Your task to perform on an android device: move a message to another label in the gmail app Image 0: 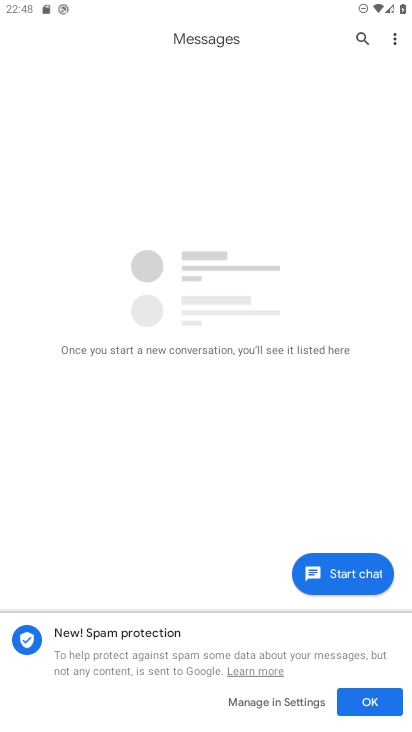
Step 0: press home button
Your task to perform on an android device: move a message to another label in the gmail app Image 1: 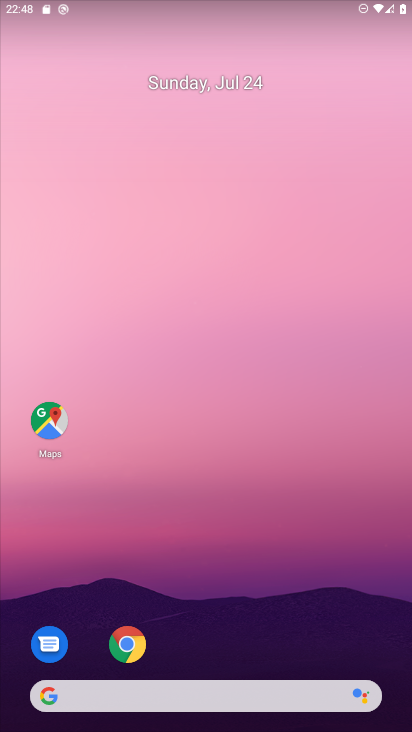
Step 1: drag from (379, 635) to (317, 67)
Your task to perform on an android device: move a message to another label in the gmail app Image 2: 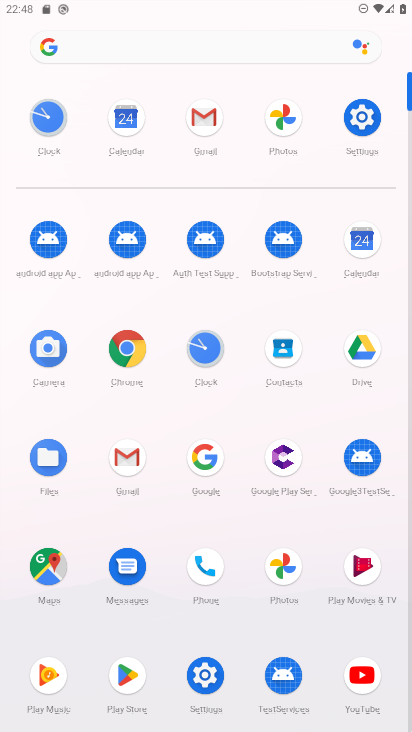
Step 2: click (124, 458)
Your task to perform on an android device: move a message to another label in the gmail app Image 3: 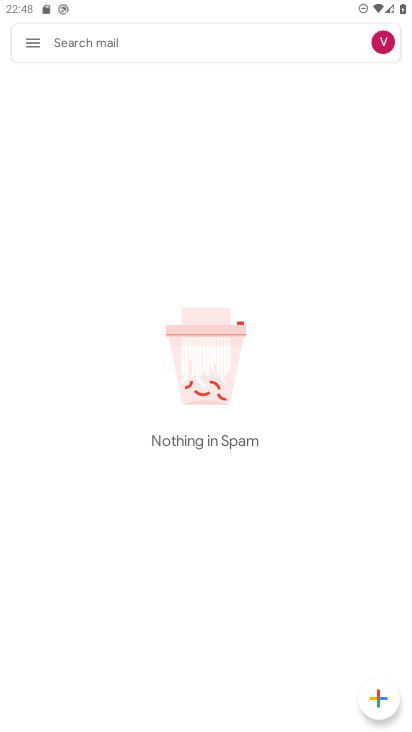
Step 3: click (25, 38)
Your task to perform on an android device: move a message to another label in the gmail app Image 4: 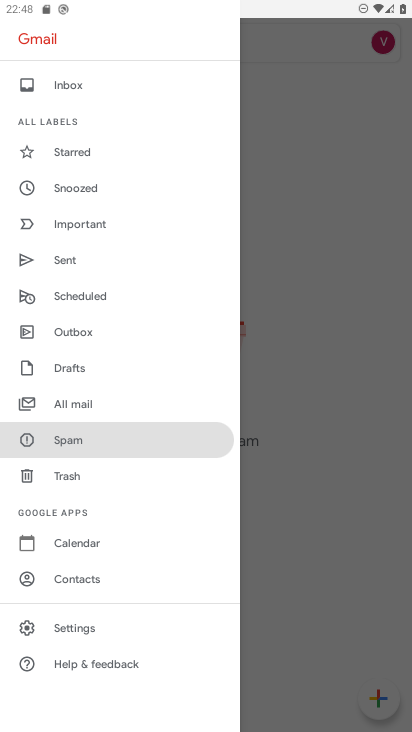
Step 4: click (70, 396)
Your task to perform on an android device: move a message to another label in the gmail app Image 5: 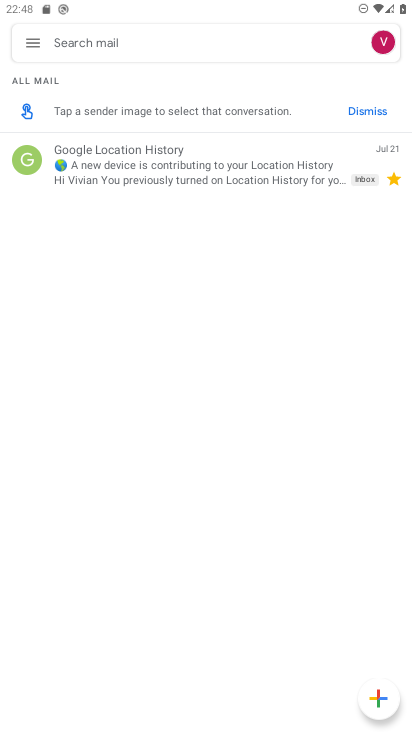
Step 5: click (223, 158)
Your task to perform on an android device: move a message to another label in the gmail app Image 6: 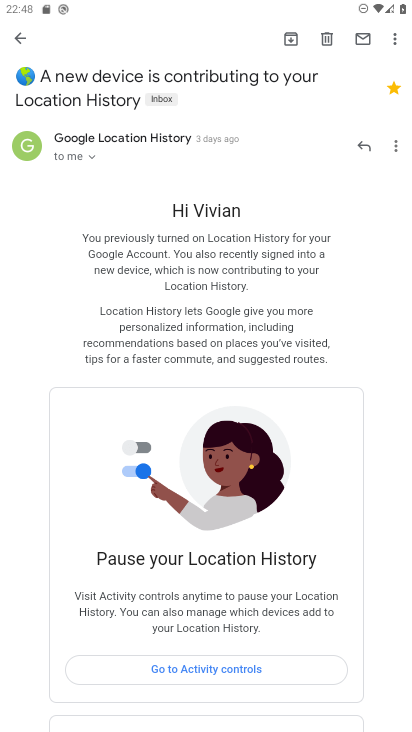
Step 6: click (395, 43)
Your task to perform on an android device: move a message to another label in the gmail app Image 7: 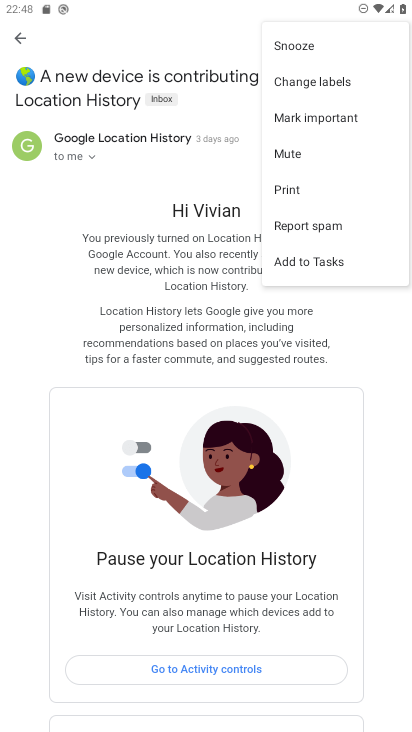
Step 7: click (301, 83)
Your task to perform on an android device: move a message to another label in the gmail app Image 8: 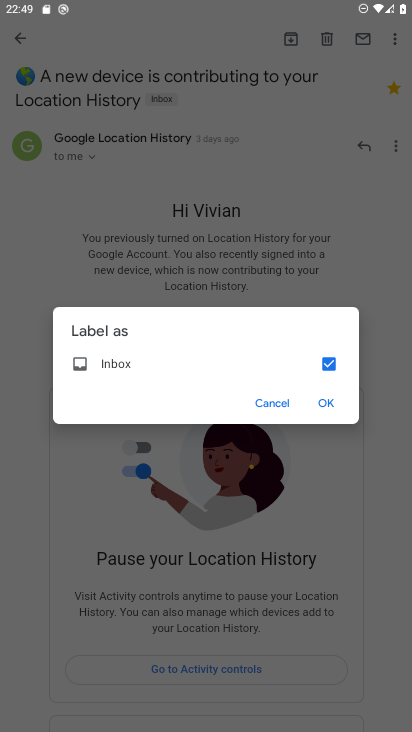
Step 8: task complete